Your task to perform on an android device: turn on showing notifications on the lock screen Image 0: 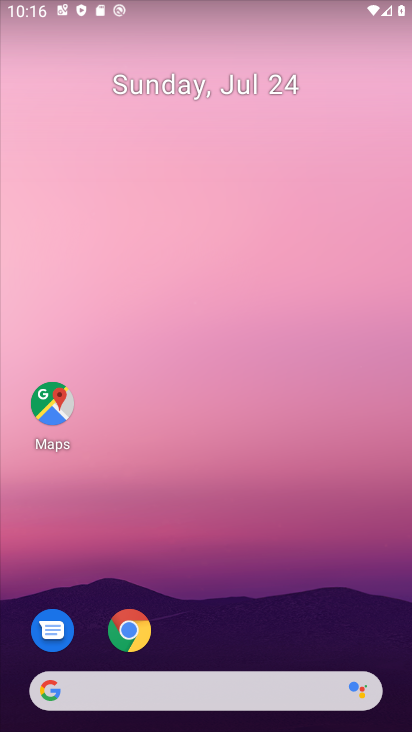
Step 0: drag from (215, 637) to (228, 151)
Your task to perform on an android device: turn on showing notifications on the lock screen Image 1: 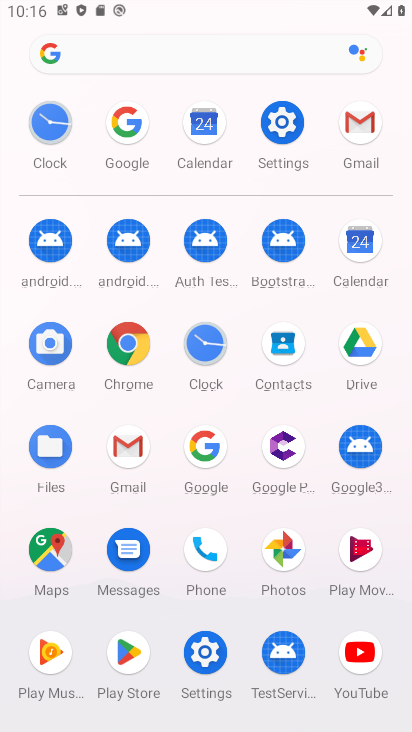
Step 1: click (269, 132)
Your task to perform on an android device: turn on showing notifications on the lock screen Image 2: 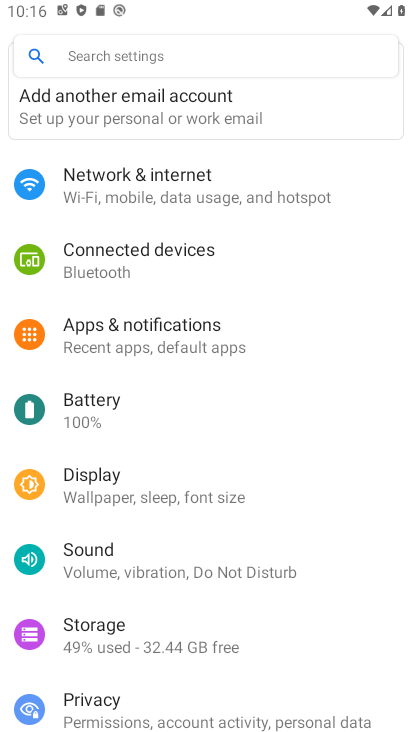
Step 2: click (219, 327)
Your task to perform on an android device: turn on showing notifications on the lock screen Image 3: 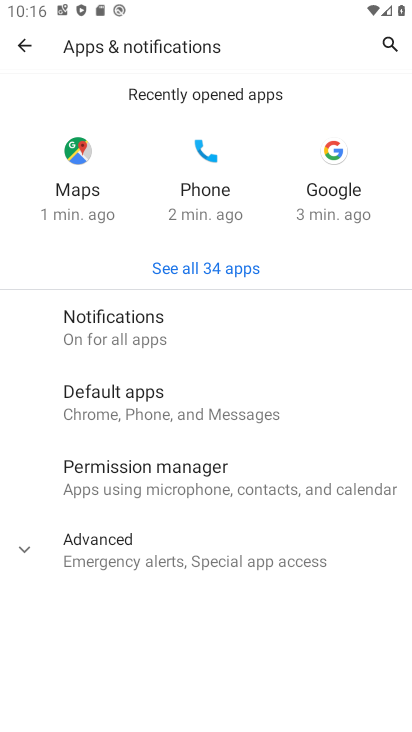
Step 3: click (213, 327)
Your task to perform on an android device: turn on showing notifications on the lock screen Image 4: 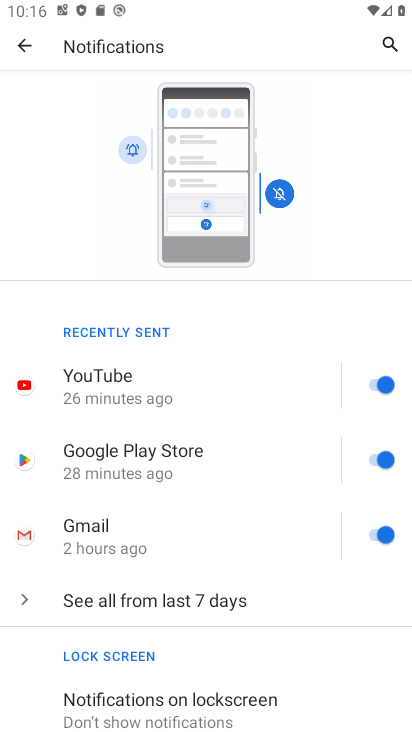
Step 4: click (227, 696)
Your task to perform on an android device: turn on showing notifications on the lock screen Image 5: 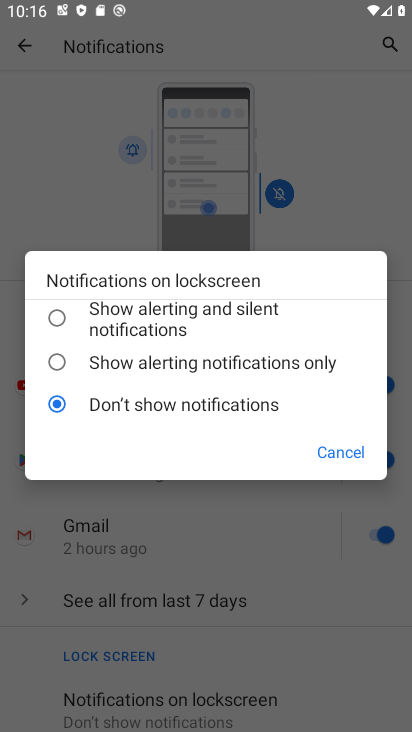
Step 5: click (133, 320)
Your task to perform on an android device: turn on showing notifications on the lock screen Image 6: 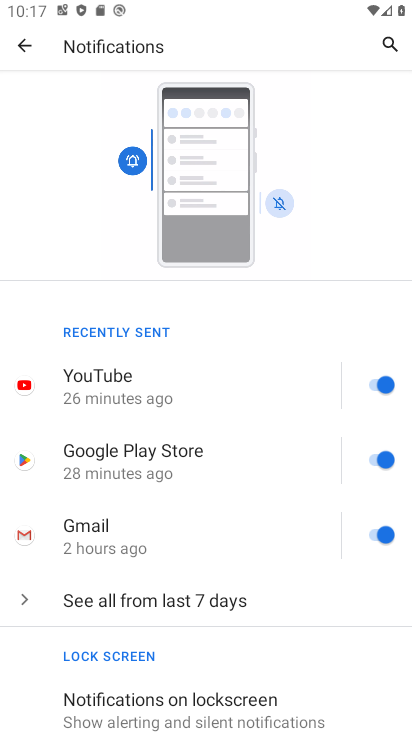
Step 6: task complete